Your task to perform on an android device: Open Yahoo.com Image 0: 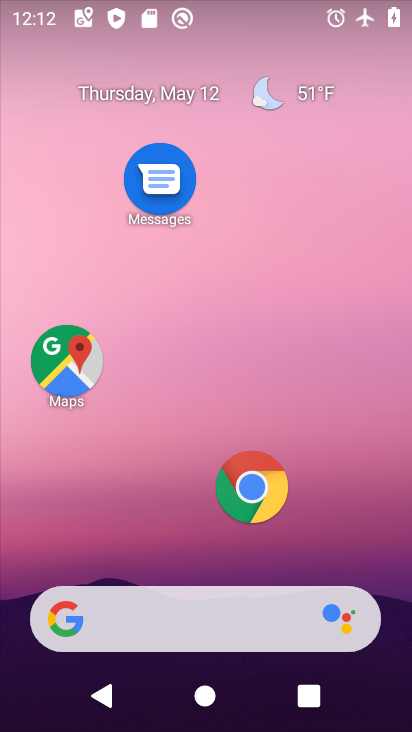
Step 0: click (249, 487)
Your task to perform on an android device: Open Yahoo.com Image 1: 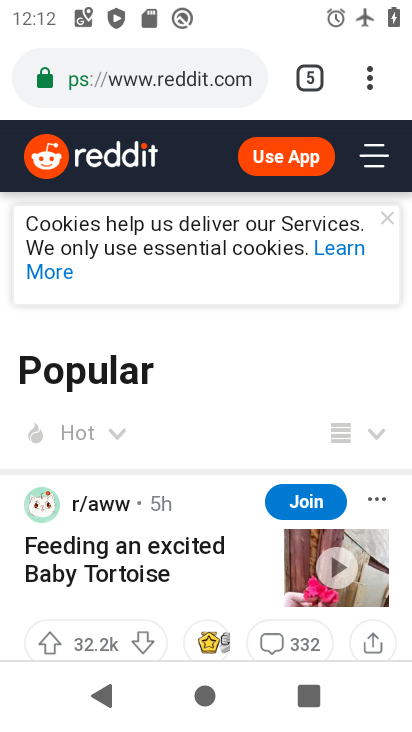
Step 1: click (315, 75)
Your task to perform on an android device: Open Yahoo.com Image 2: 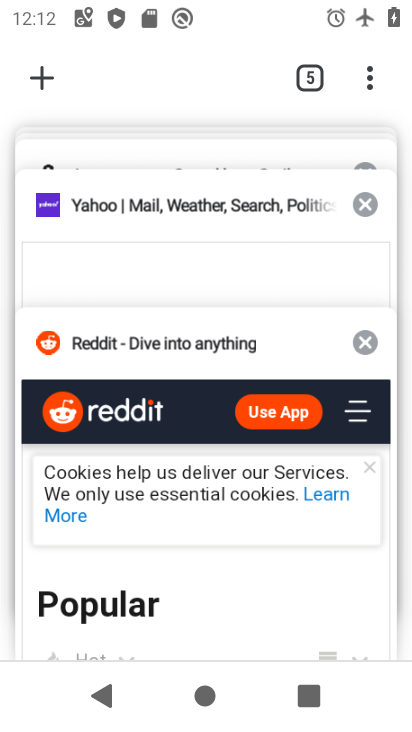
Step 2: click (224, 264)
Your task to perform on an android device: Open Yahoo.com Image 3: 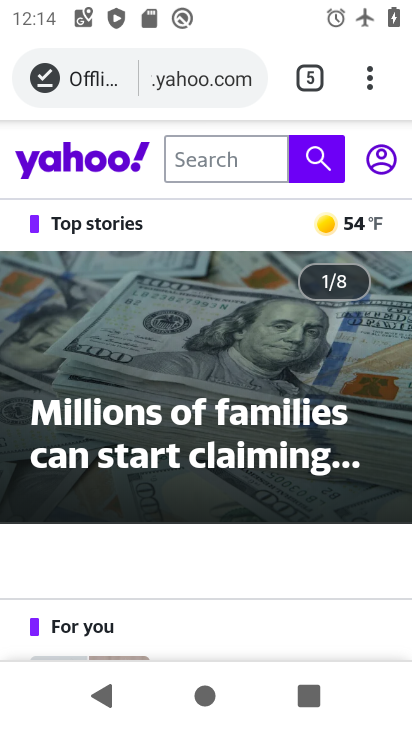
Step 3: task complete